Your task to perform on an android device: turn vacation reply on in the gmail app Image 0: 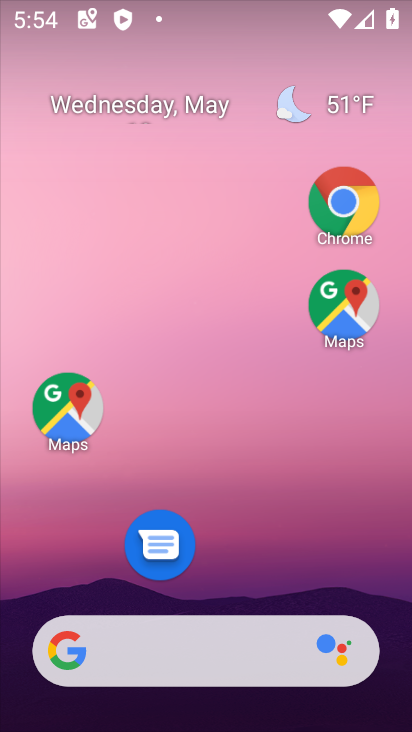
Step 0: drag from (242, 561) to (206, 14)
Your task to perform on an android device: turn vacation reply on in the gmail app Image 1: 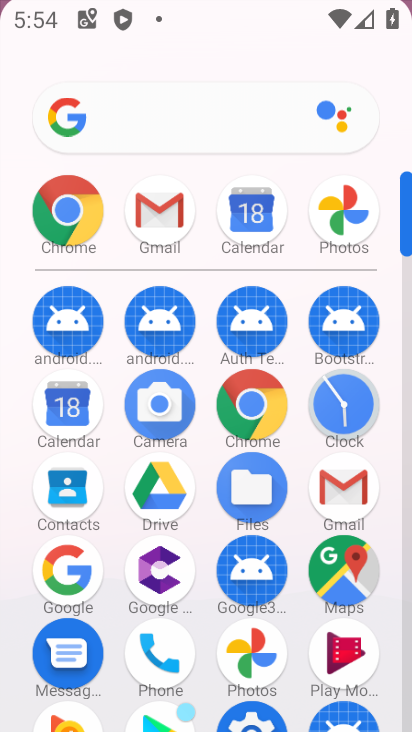
Step 1: click (175, 221)
Your task to perform on an android device: turn vacation reply on in the gmail app Image 2: 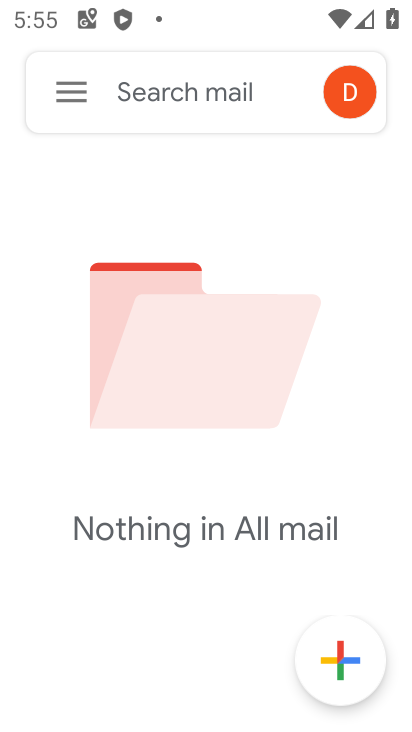
Step 2: click (75, 94)
Your task to perform on an android device: turn vacation reply on in the gmail app Image 3: 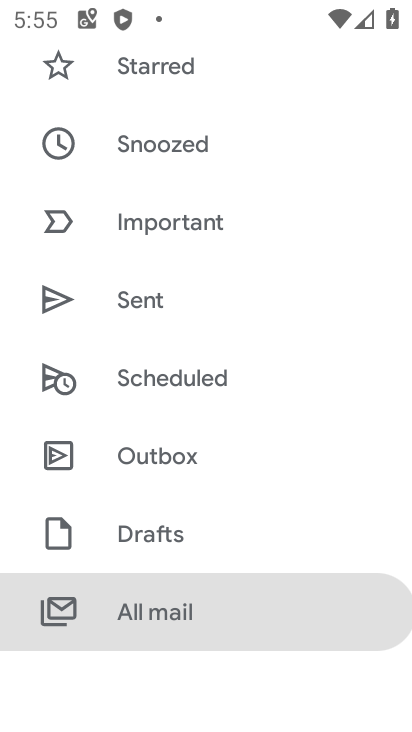
Step 3: drag from (160, 534) to (165, 80)
Your task to perform on an android device: turn vacation reply on in the gmail app Image 4: 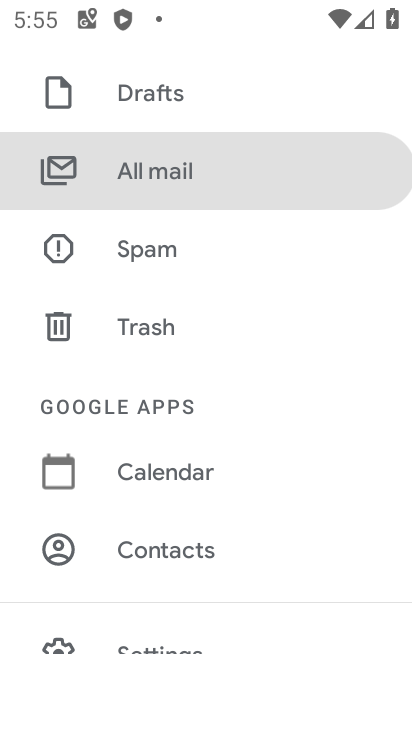
Step 4: drag from (212, 561) to (186, 170)
Your task to perform on an android device: turn vacation reply on in the gmail app Image 5: 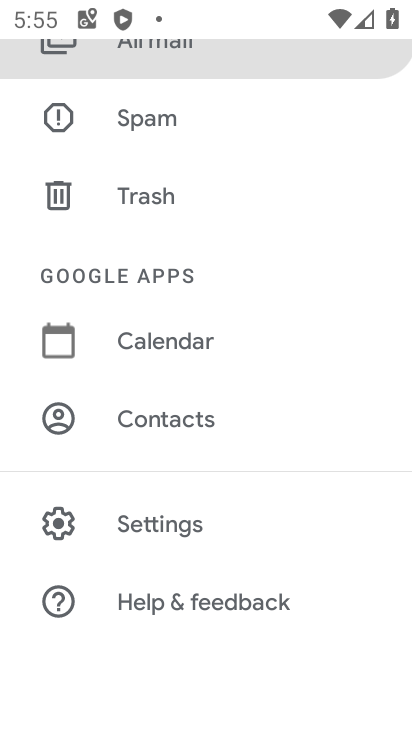
Step 5: click (160, 521)
Your task to perform on an android device: turn vacation reply on in the gmail app Image 6: 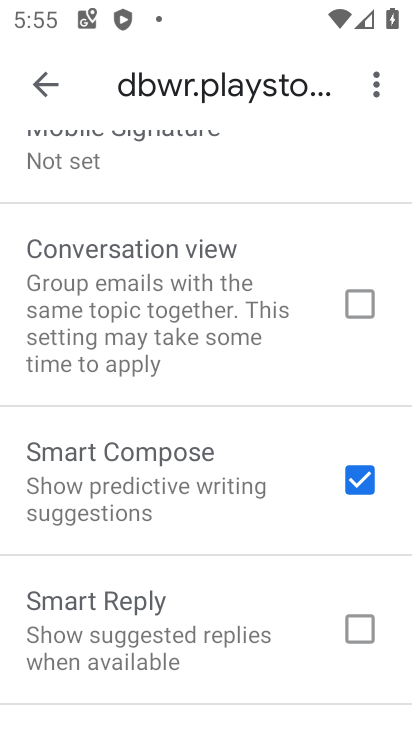
Step 6: drag from (245, 614) to (272, 187)
Your task to perform on an android device: turn vacation reply on in the gmail app Image 7: 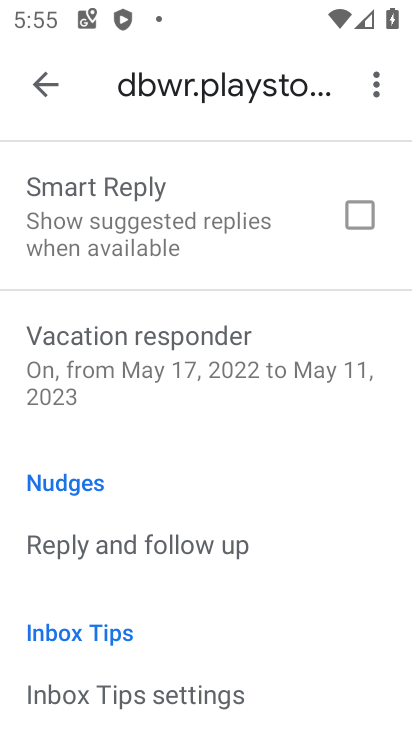
Step 7: click (130, 382)
Your task to perform on an android device: turn vacation reply on in the gmail app Image 8: 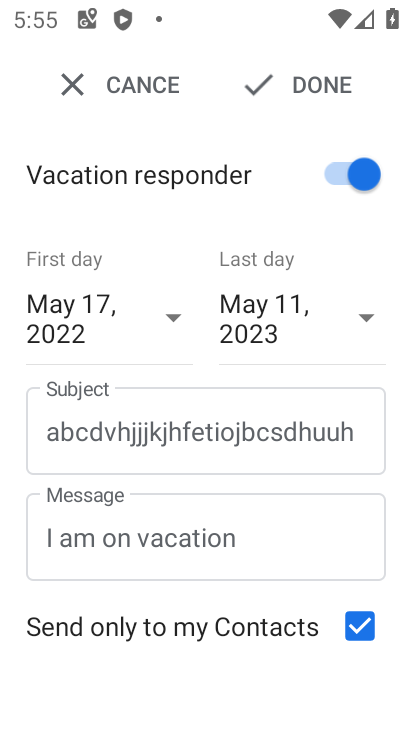
Step 8: task complete